Your task to perform on an android device: remove spam from my inbox in the gmail app Image 0: 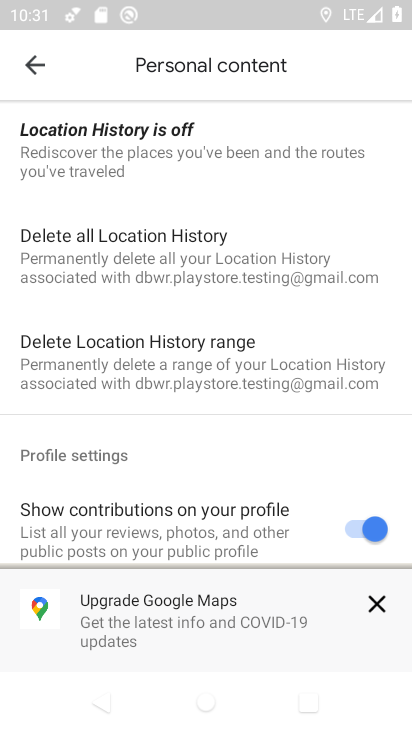
Step 0: press home button
Your task to perform on an android device: remove spam from my inbox in the gmail app Image 1: 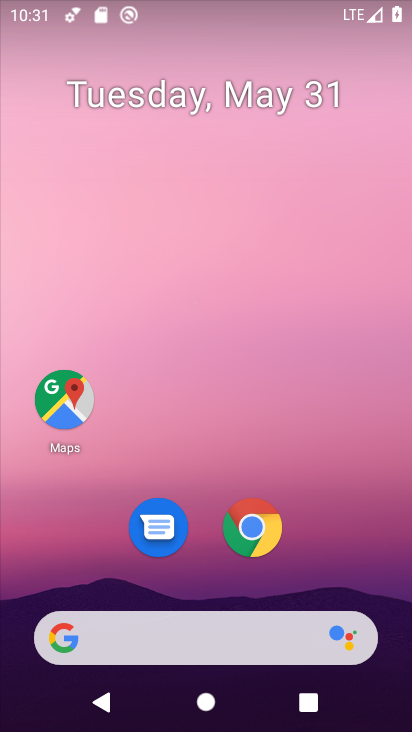
Step 1: drag from (342, 589) to (324, 14)
Your task to perform on an android device: remove spam from my inbox in the gmail app Image 2: 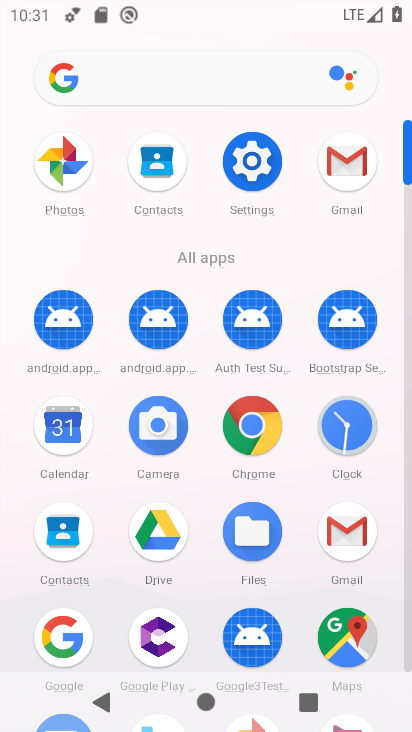
Step 2: click (341, 178)
Your task to perform on an android device: remove spam from my inbox in the gmail app Image 3: 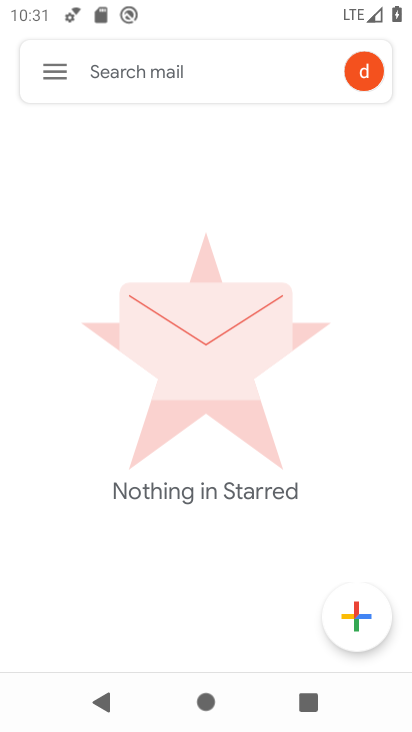
Step 3: click (51, 72)
Your task to perform on an android device: remove spam from my inbox in the gmail app Image 4: 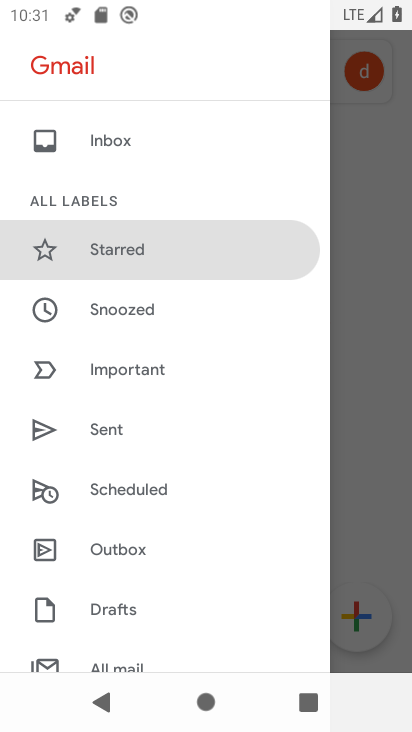
Step 4: drag from (169, 577) to (182, 256)
Your task to perform on an android device: remove spam from my inbox in the gmail app Image 5: 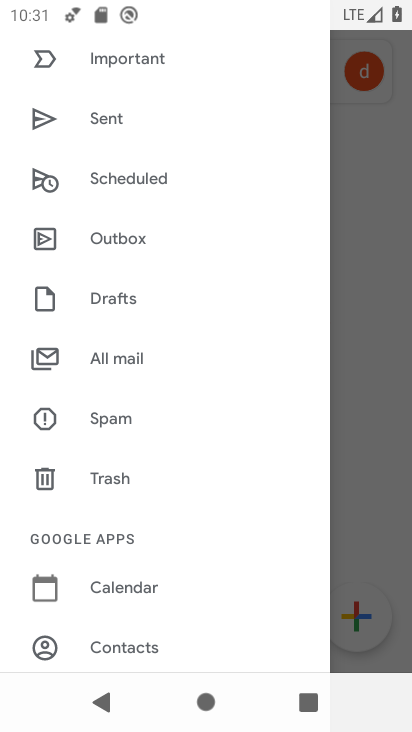
Step 5: click (93, 419)
Your task to perform on an android device: remove spam from my inbox in the gmail app Image 6: 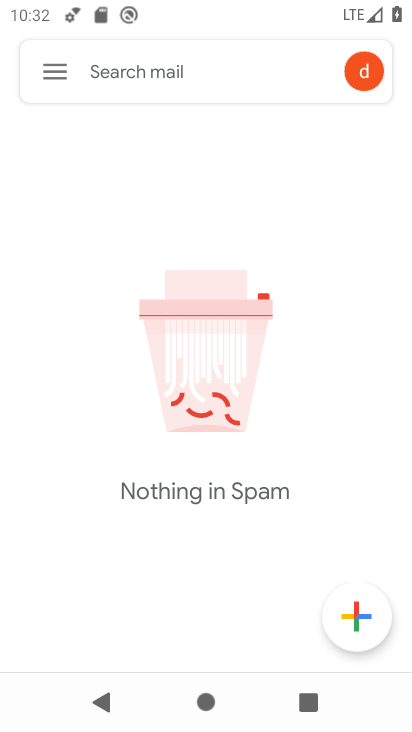
Step 6: task complete